Your task to perform on an android device: Open Google Image 0: 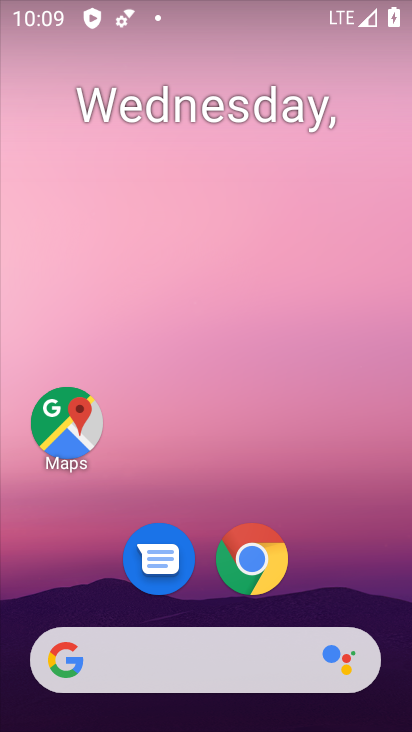
Step 0: click (301, 148)
Your task to perform on an android device: Open Google Image 1: 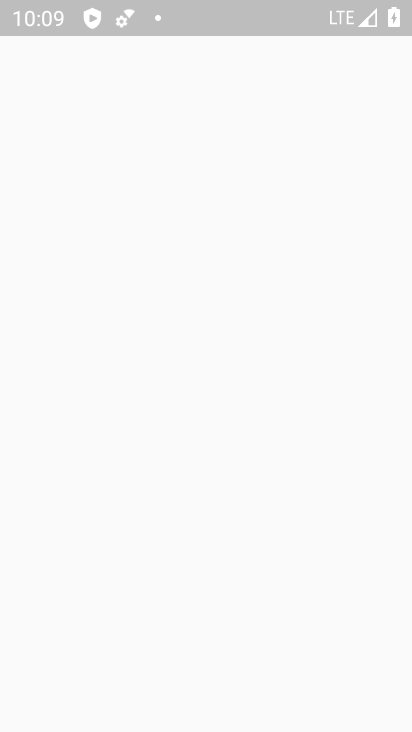
Step 1: drag from (364, 578) to (407, 14)
Your task to perform on an android device: Open Google Image 2: 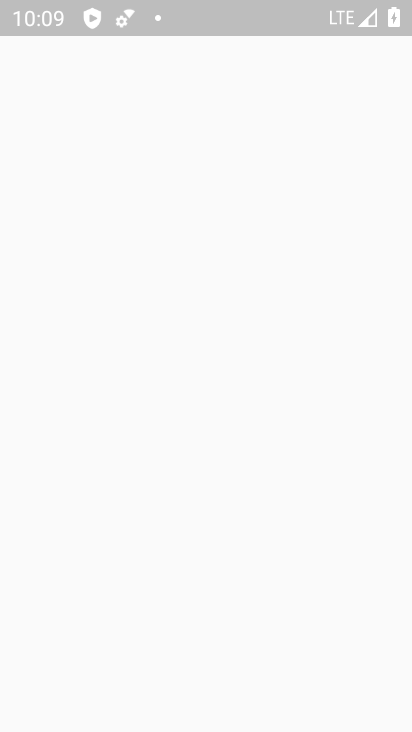
Step 2: press home button
Your task to perform on an android device: Open Google Image 3: 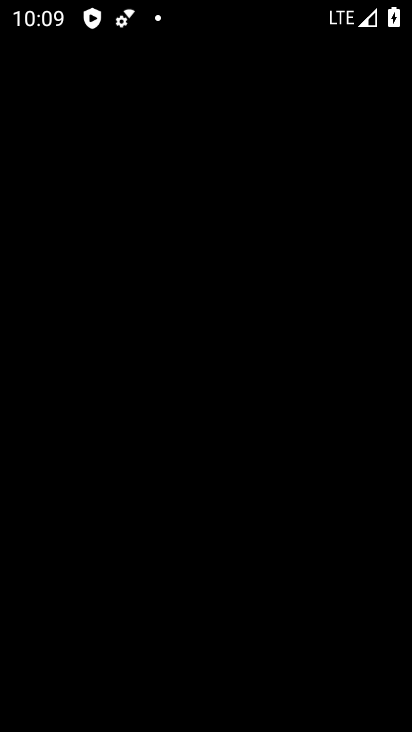
Step 3: click (365, 446)
Your task to perform on an android device: Open Google Image 4: 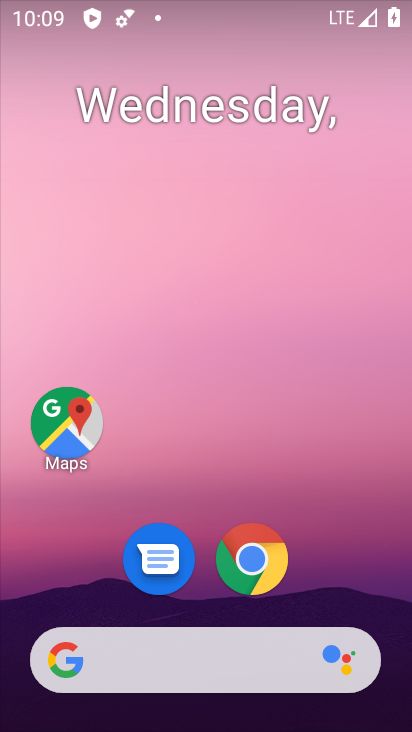
Step 4: click (253, 568)
Your task to perform on an android device: Open Google Image 5: 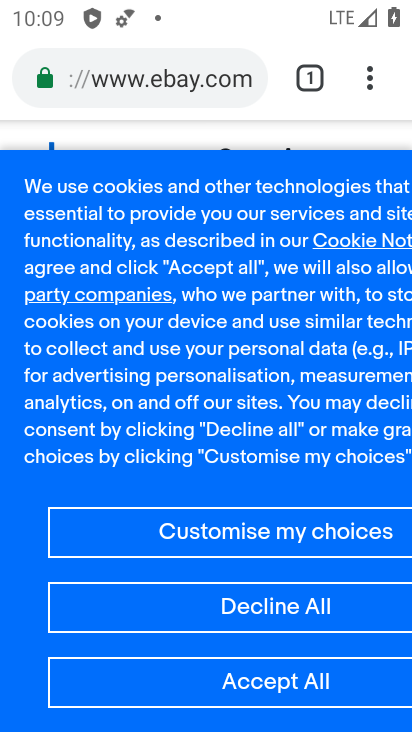
Step 5: press home button
Your task to perform on an android device: Open Google Image 6: 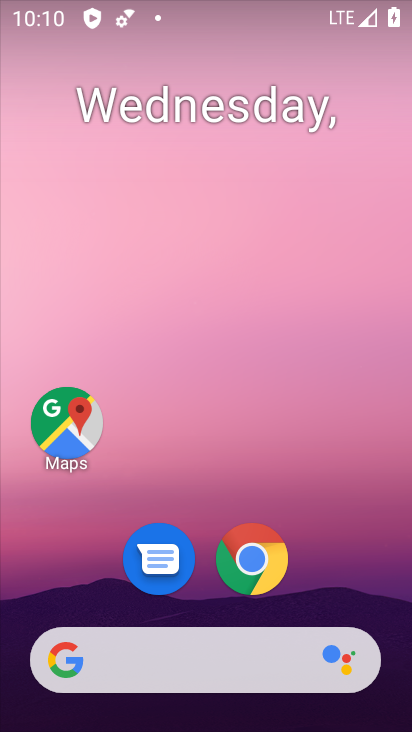
Step 6: drag from (356, 543) to (224, 11)
Your task to perform on an android device: Open Google Image 7: 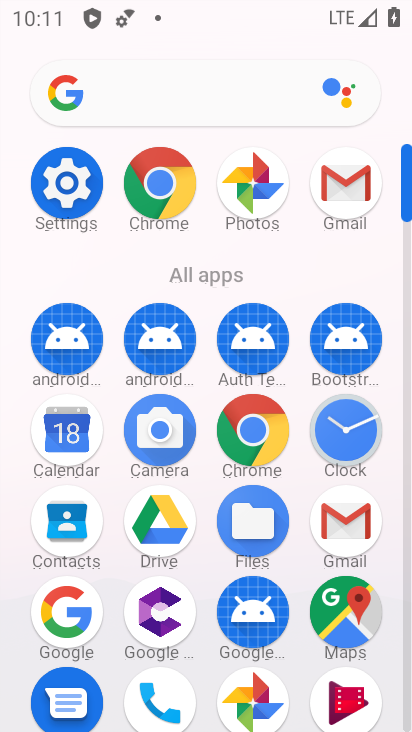
Step 7: click (75, 628)
Your task to perform on an android device: Open Google Image 8: 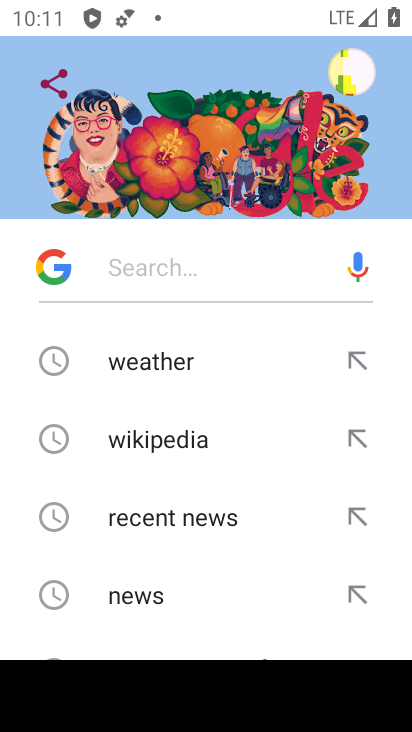
Step 8: click (48, 278)
Your task to perform on an android device: Open Google Image 9: 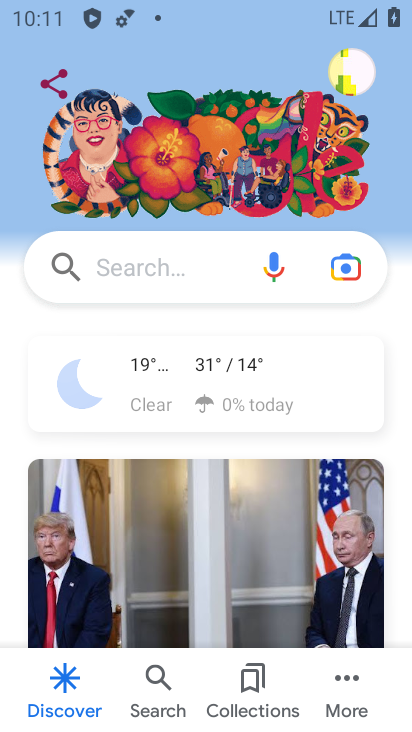
Step 9: click (160, 410)
Your task to perform on an android device: Open Google Image 10: 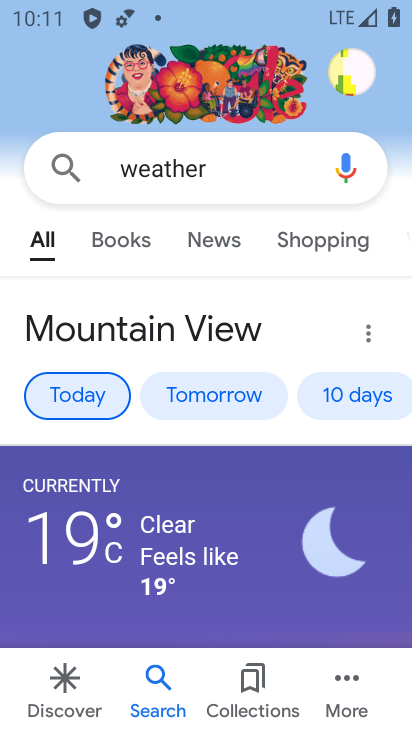
Step 10: task complete